Your task to perform on an android device: Open Yahoo.com Image 0: 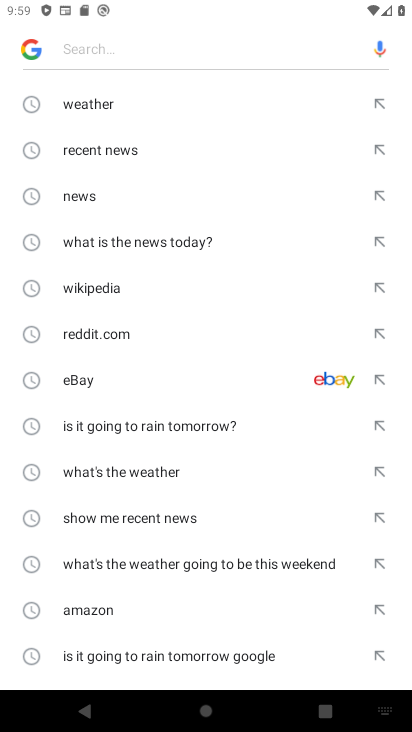
Step 0: click (134, 48)
Your task to perform on an android device: Open Yahoo.com Image 1: 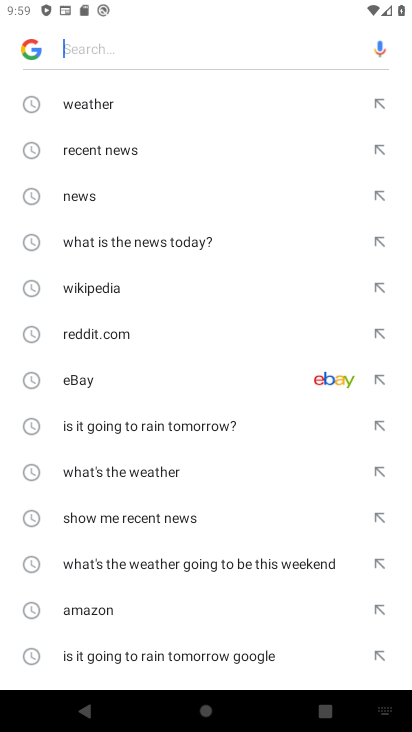
Step 1: type "yahoo.com"
Your task to perform on an android device: Open Yahoo.com Image 2: 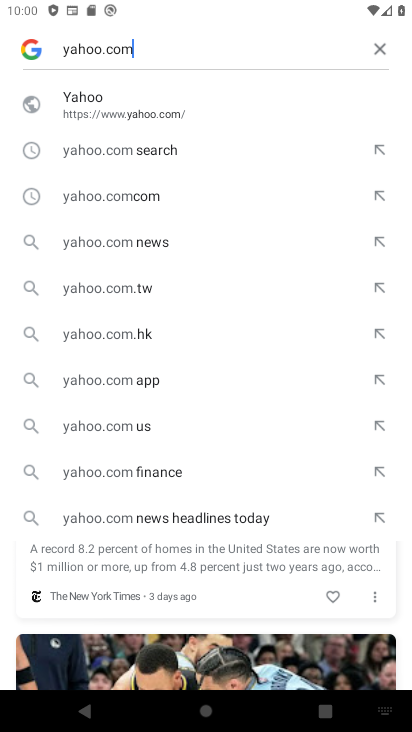
Step 2: click (142, 102)
Your task to perform on an android device: Open Yahoo.com Image 3: 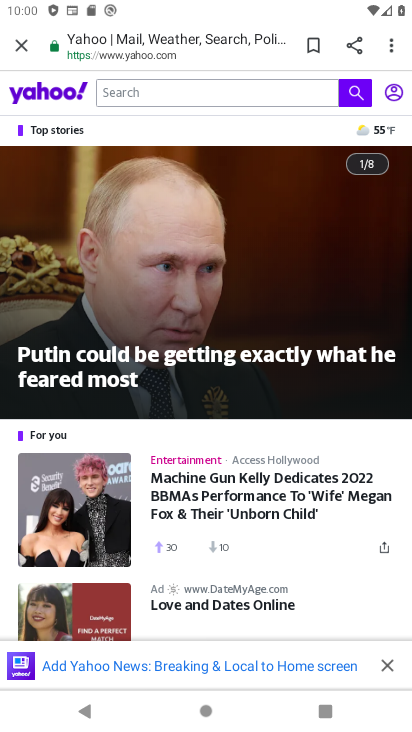
Step 3: task complete